Your task to perform on an android device: clear history in the chrome app Image 0: 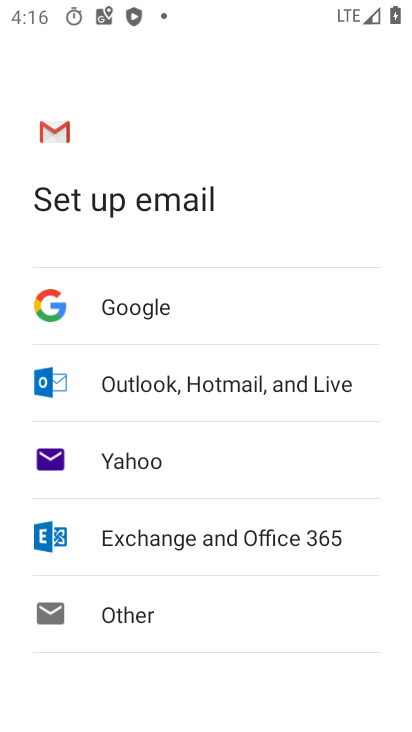
Step 0: press home button
Your task to perform on an android device: clear history in the chrome app Image 1: 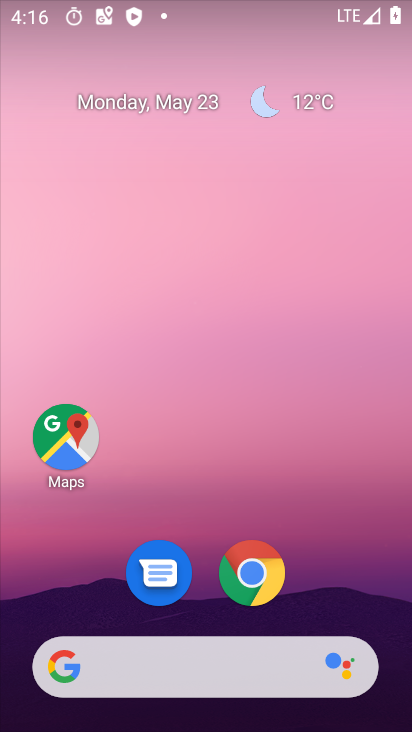
Step 1: click (255, 570)
Your task to perform on an android device: clear history in the chrome app Image 2: 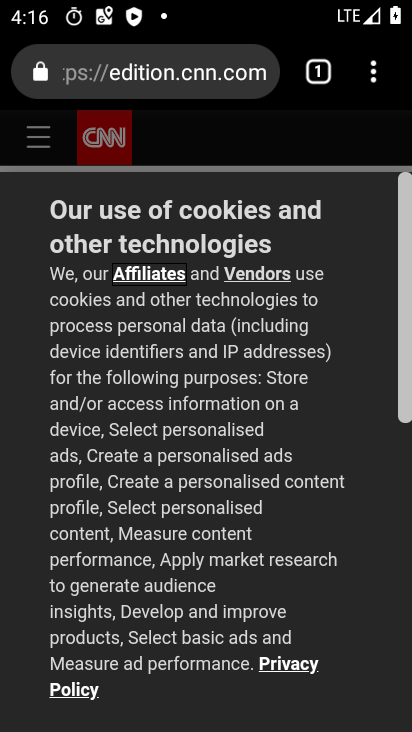
Step 2: click (366, 71)
Your task to perform on an android device: clear history in the chrome app Image 3: 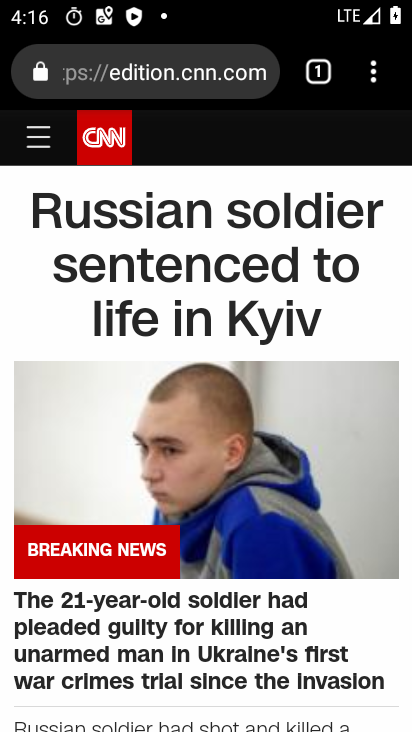
Step 3: click (373, 76)
Your task to perform on an android device: clear history in the chrome app Image 4: 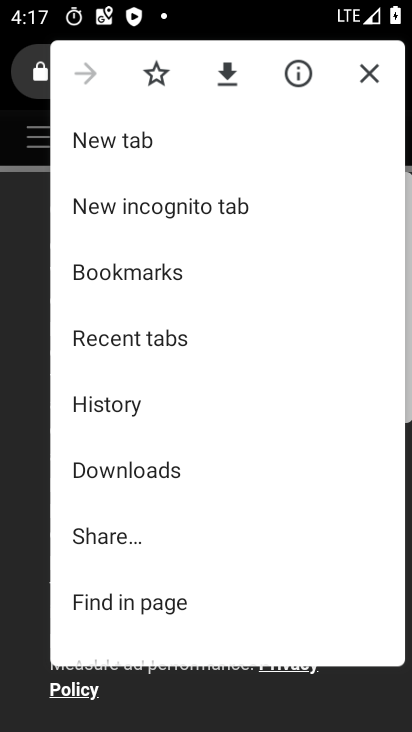
Step 4: click (115, 415)
Your task to perform on an android device: clear history in the chrome app Image 5: 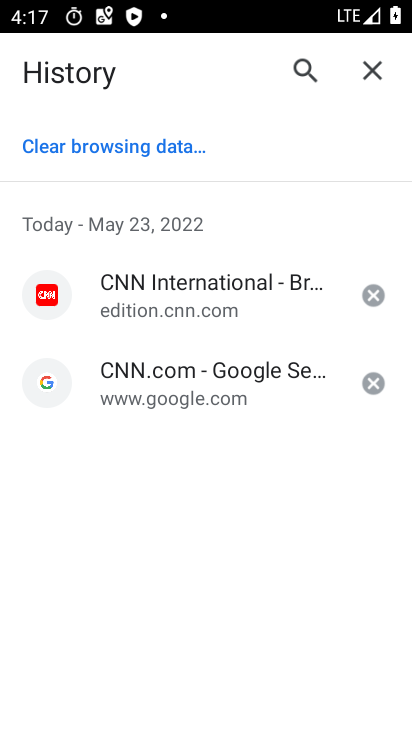
Step 5: click (168, 146)
Your task to perform on an android device: clear history in the chrome app Image 6: 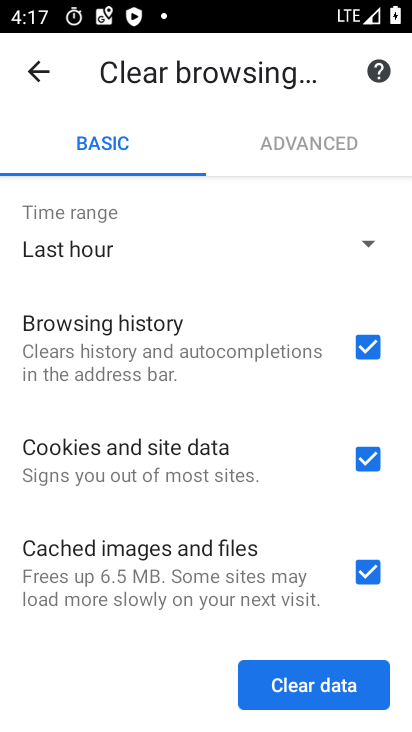
Step 6: click (306, 683)
Your task to perform on an android device: clear history in the chrome app Image 7: 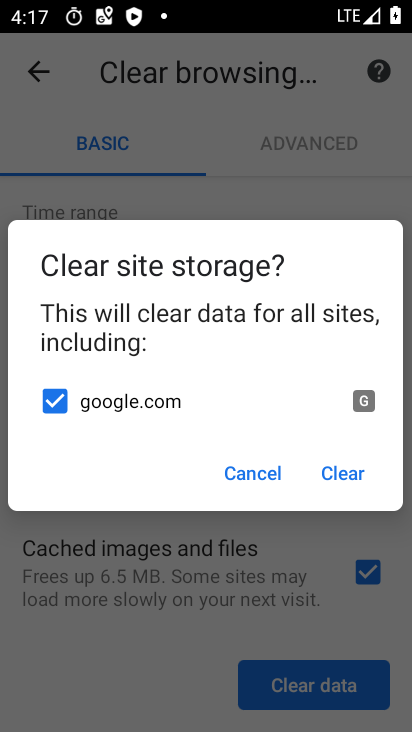
Step 7: click (327, 477)
Your task to perform on an android device: clear history in the chrome app Image 8: 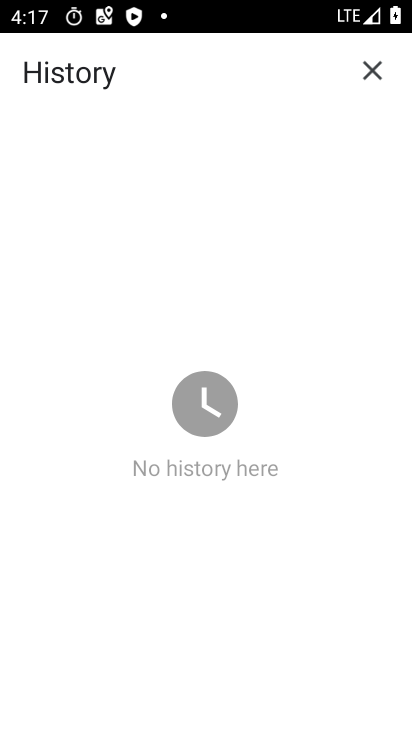
Step 8: task complete